Your task to perform on an android device: Open the calendar app, open the side menu, and click the "Day" option Image 0: 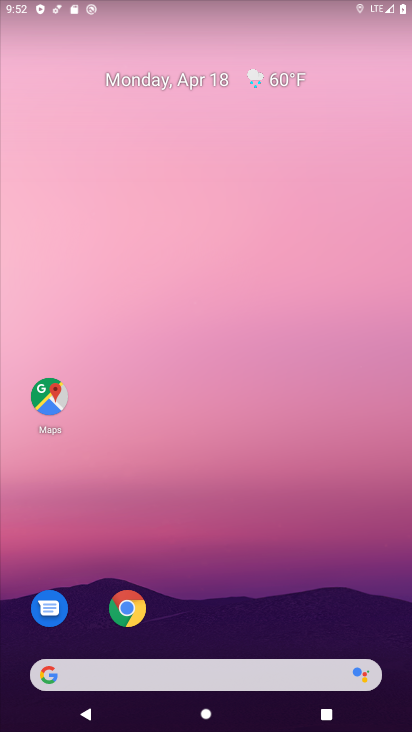
Step 0: drag from (208, 519) to (242, 159)
Your task to perform on an android device: Open the calendar app, open the side menu, and click the "Day" option Image 1: 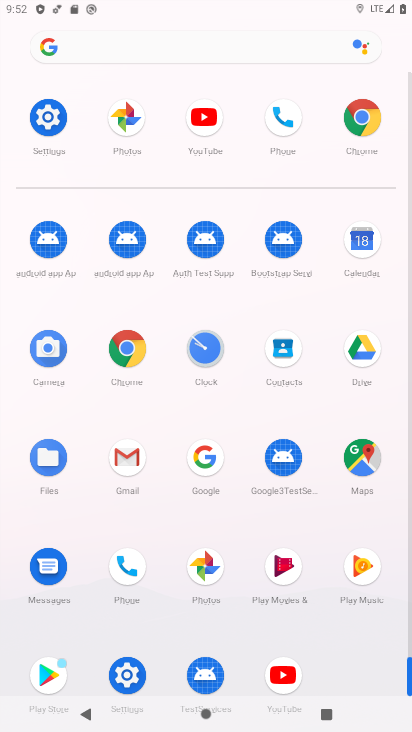
Step 1: click (369, 232)
Your task to perform on an android device: Open the calendar app, open the side menu, and click the "Day" option Image 2: 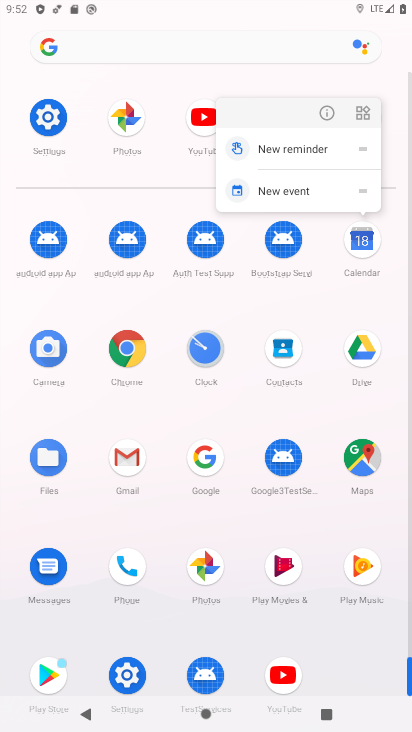
Step 2: click (330, 108)
Your task to perform on an android device: Open the calendar app, open the side menu, and click the "Day" option Image 3: 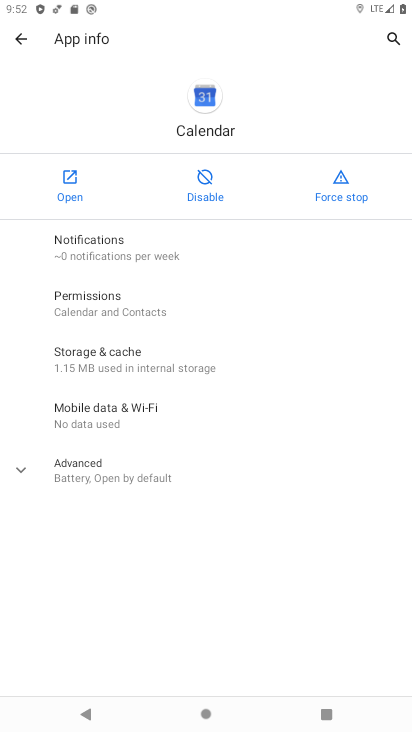
Step 3: click (76, 186)
Your task to perform on an android device: Open the calendar app, open the side menu, and click the "Day" option Image 4: 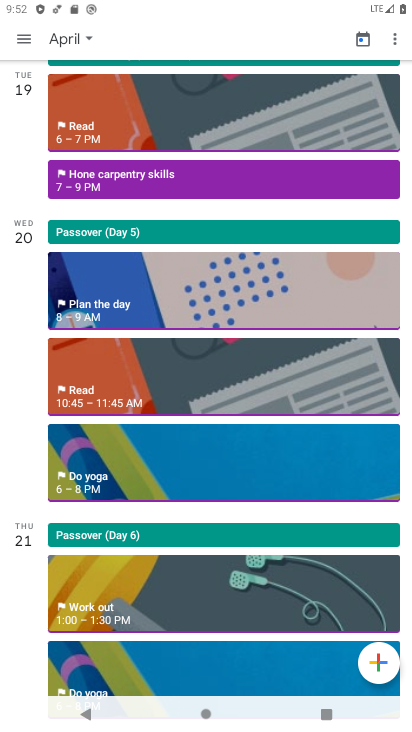
Step 4: click (26, 43)
Your task to perform on an android device: Open the calendar app, open the side menu, and click the "Day" option Image 5: 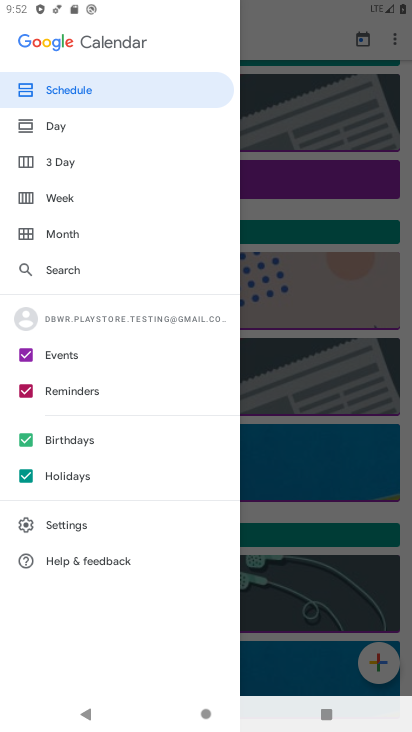
Step 5: click (100, 123)
Your task to perform on an android device: Open the calendar app, open the side menu, and click the "Day" option Image 6: 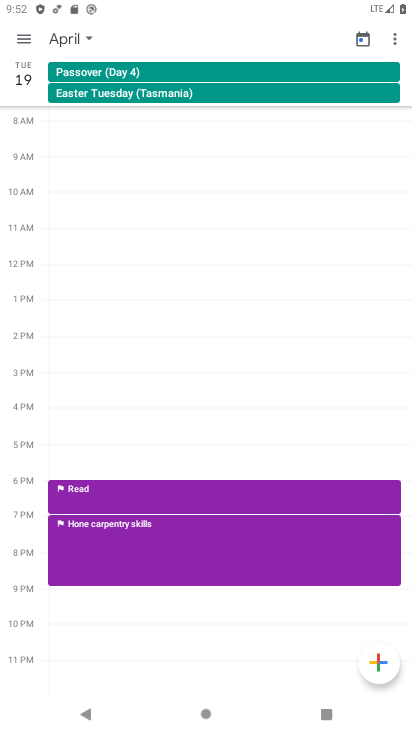
Step 6: task complete